Your task to perform on an android device: Toggle the flashlight Image 0: 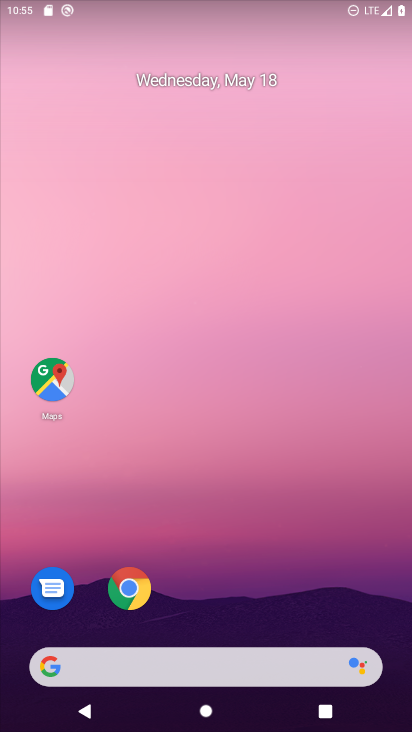
Step 0: drag from (172, 5) to (171, 611)
Your task to perform on an android device: Toggle the flashlight Image 1: 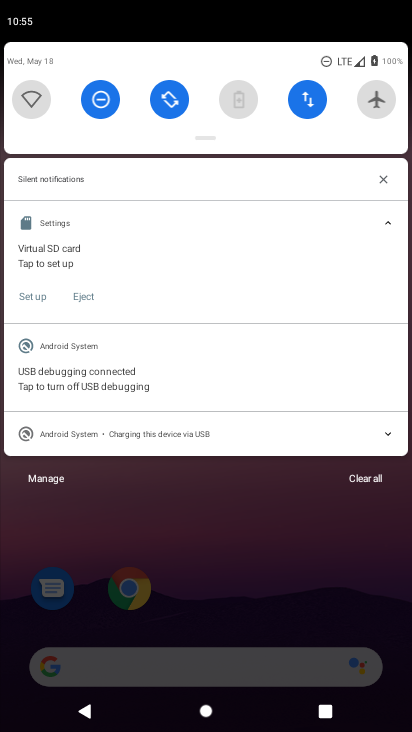
Step 1: task complete